Your task to perform on an android device: Open my contact list Image 0: 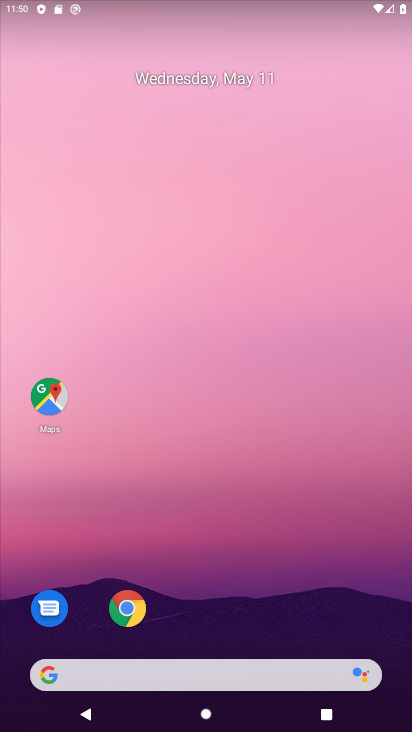
Step 0: drag from (359, 643) to (386, 0)
Your task to perform on an android device: Open my contact list Image 1: 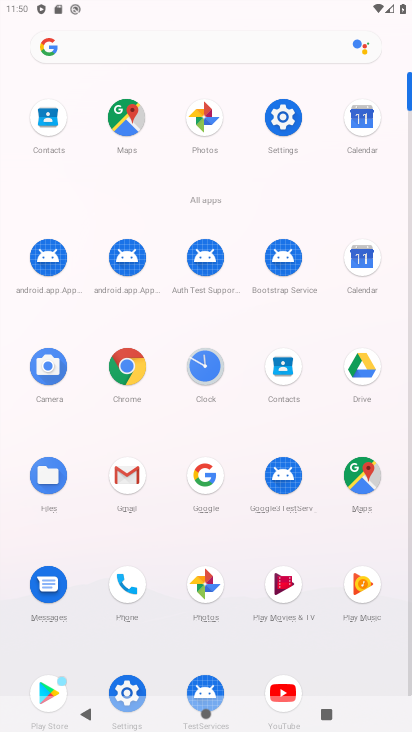
Step 1: click (280, 361)
Your task to perform on an android device: Open my contact list Image 2: 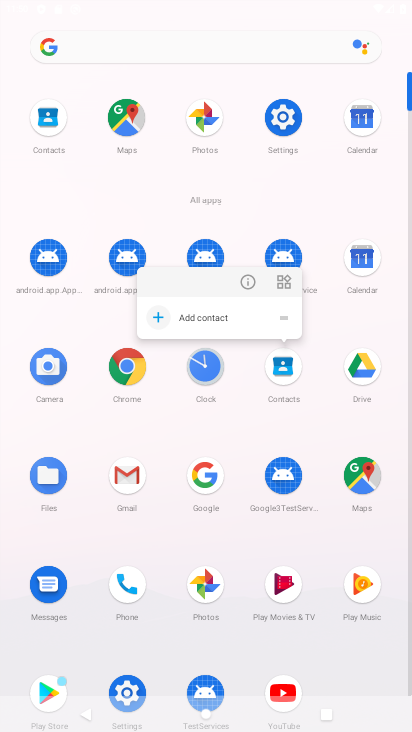
Step 2: click (289, 379)
Your task to perform on an android device: Open my contact list Image 3: 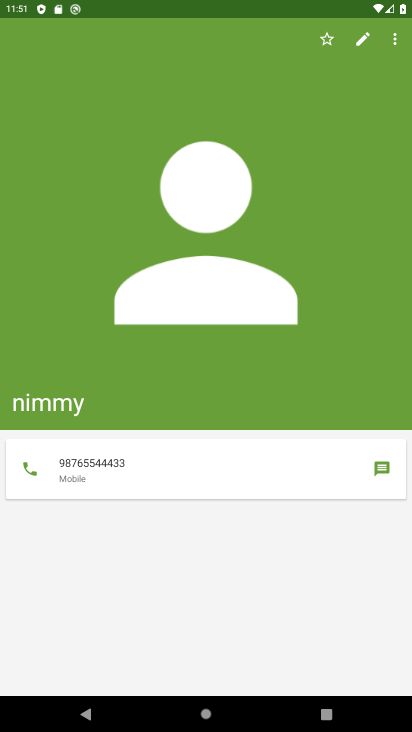
Step 3: task complete